Your task to perform on an android device: check google app version Image 0: 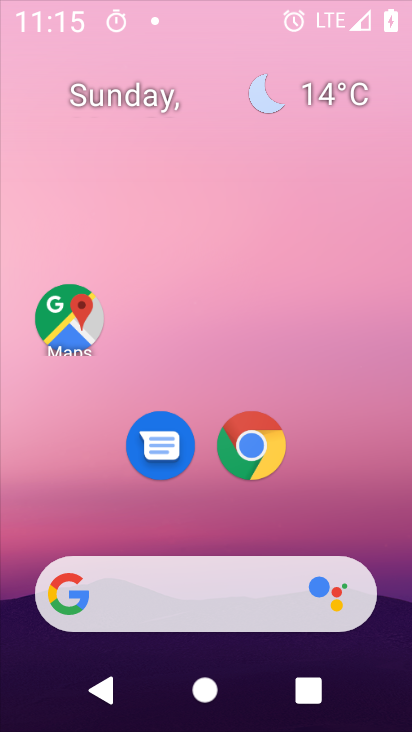
Step 0: click (383, 259)
Your task to perform on an android device: check google app version Image 1: 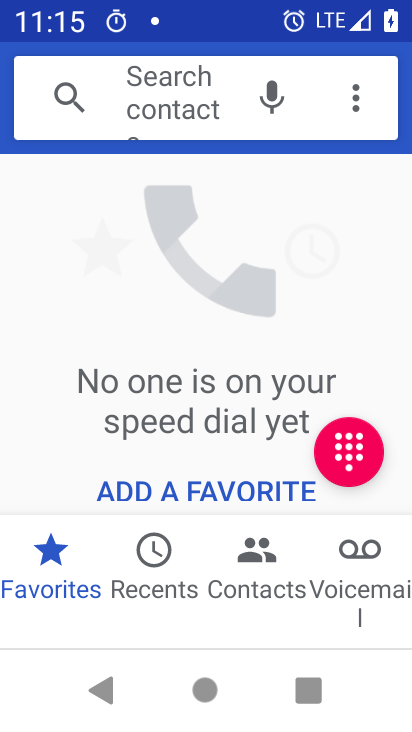
Step 1: drag from (272, 427) to (269, 144)
Your task to perform on an android device: check google app version Image 2: 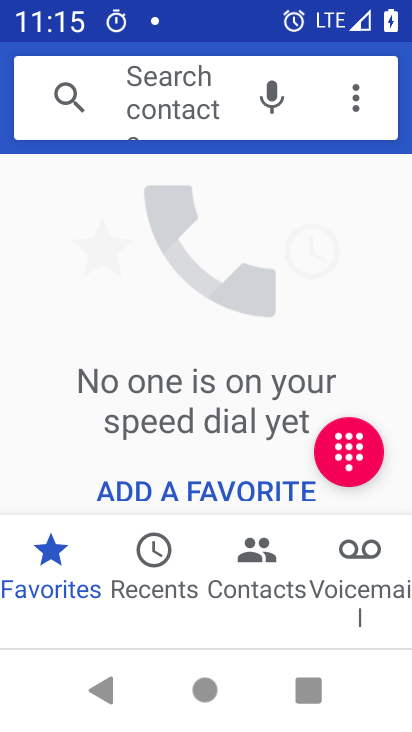
Step 2: press home button
Your task to perform on an android device: check google app version Image 3: 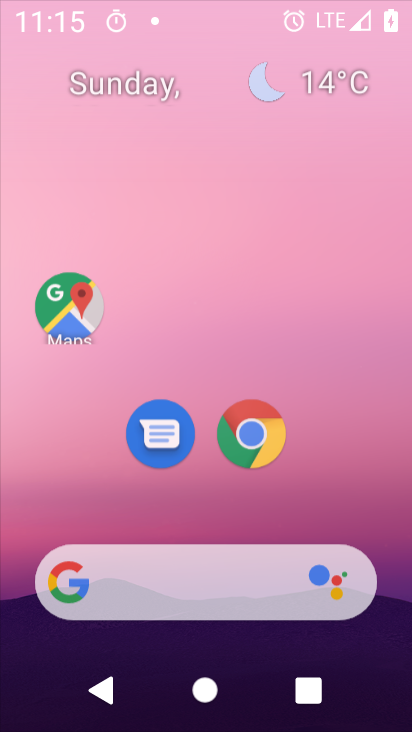
Step 3: drag from (218, 507) to (322, 82)
Your task to perform on an android device: check google app version Image 4: 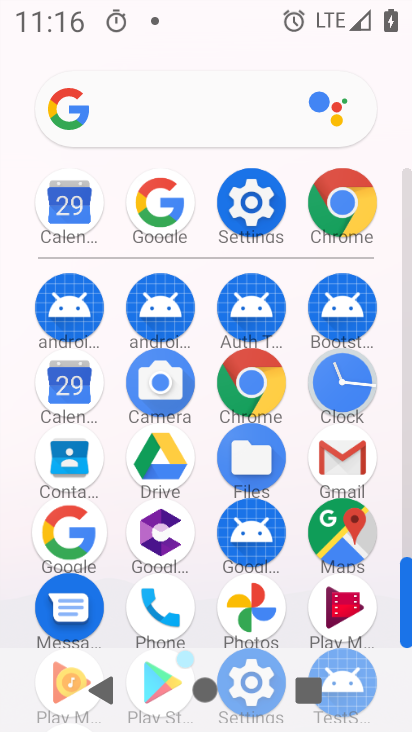
Step 4: click (76, 520)
Your task to perform on an android device: check google app version Image 5: 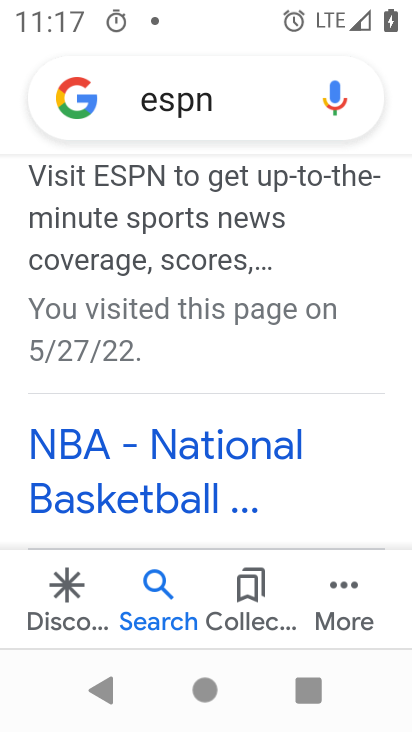
Step 5: click (318, 582)
Your task to perform on an android device: check google app version Image 6: 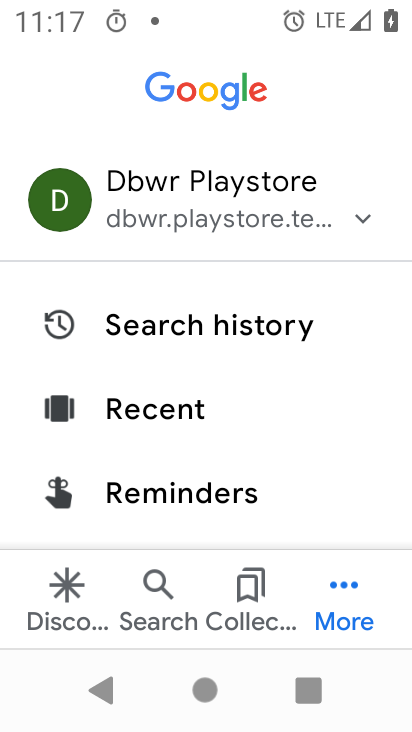
Step 6: drag from (213, 470) to (303, 46)
Your task to perform on an android device: check google app version Image 7: 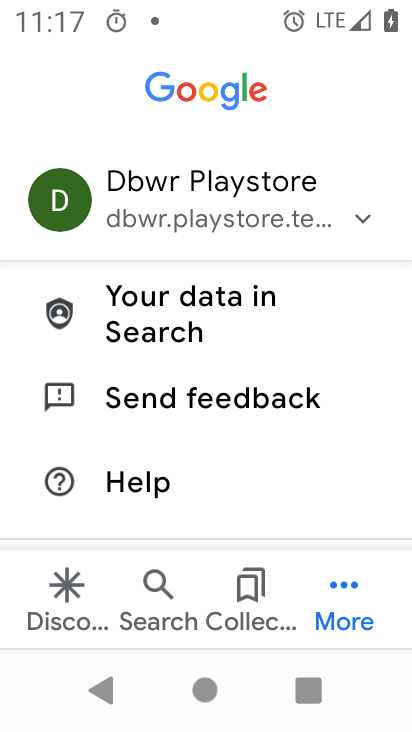
Step 7: drag from (210, 353) to (227, 535)
Your task to perform on an android device: check google app version Image 8: 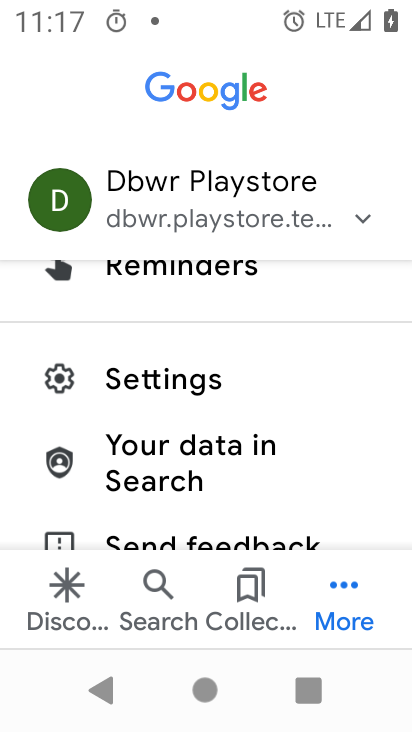
Step 8: click (190, 376)
Your task to perform on an android device: check google app version Image 9: 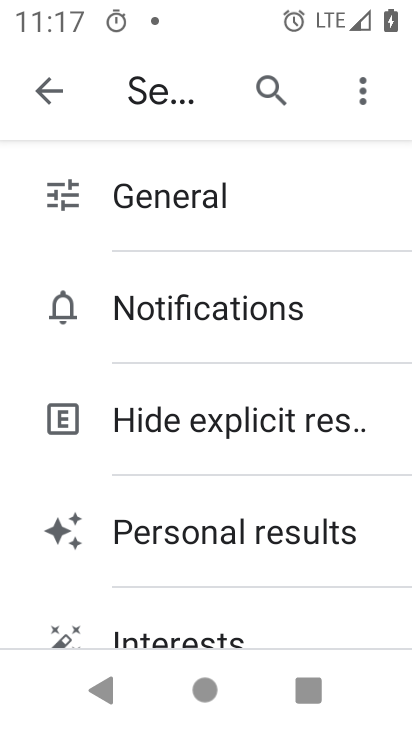
Step 9: drag from (251, 522) to (272, 145)
Your task to perform on an android device: check google app version Image 10: 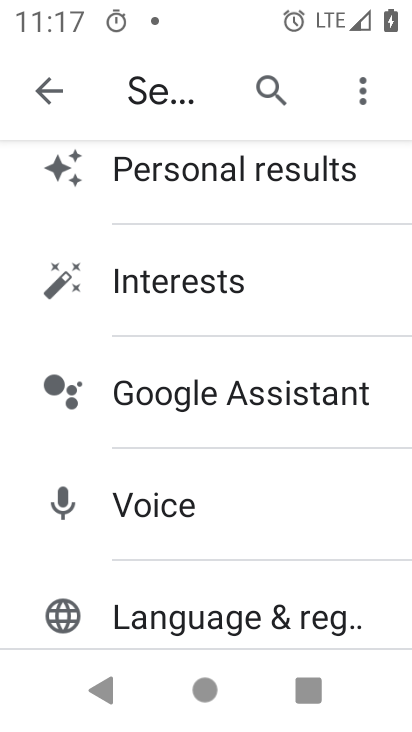
Step 10: drag from (259, 506) to (356, 83)
Your task to perform on an android device: check google app version Image 11: 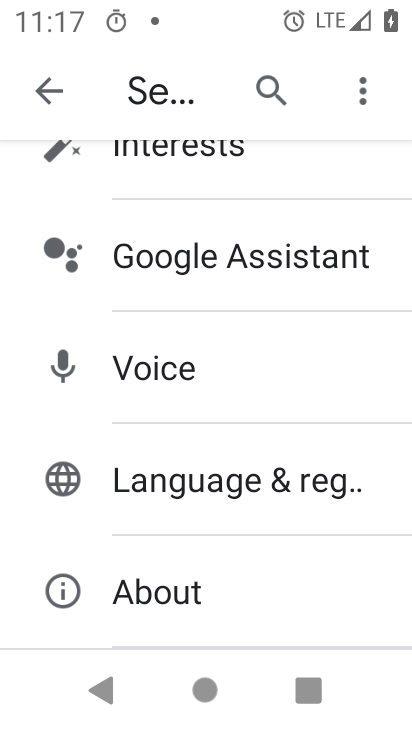
Step 11: click (249, 573)
Your task to perform on an android device: check google app version Image 12: 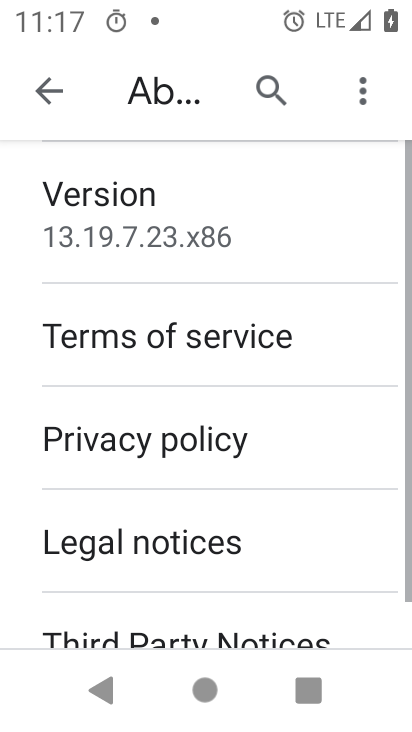
Step 12: click (169, 219)
Your task to perform on an android device: check google app version Image 13: 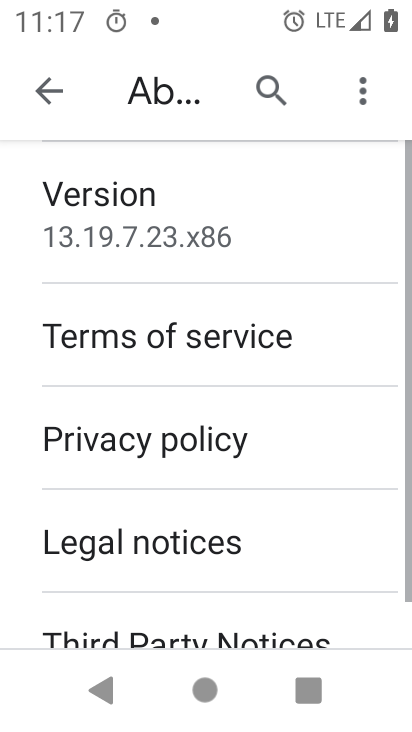
Step 13: task complete